Your task to perform on an android device: Open Google Chrome Image 0: 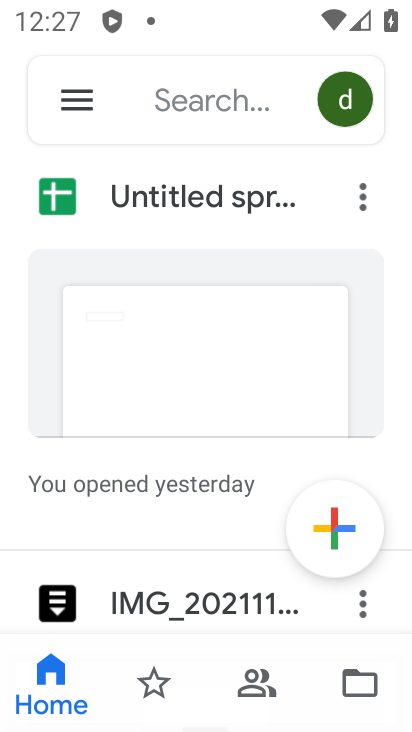
Step 0: press home button
Your task to perform on an android device: Open Google Chrome Image 1: 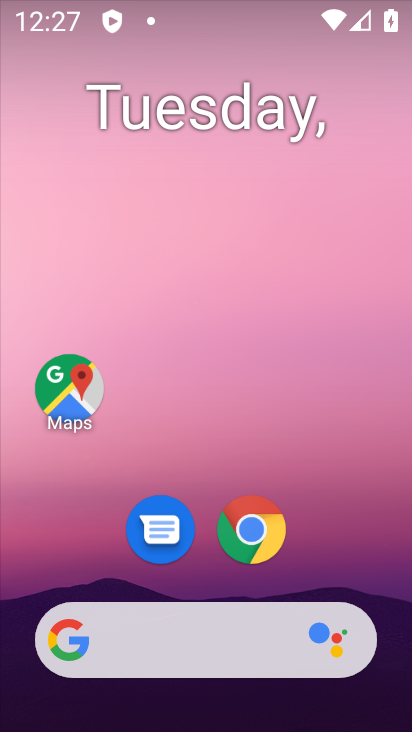
Step 1: drag from (324, 569) to (296, 296)
Your task to perform on an android device: Open Google Chrome Image 2: 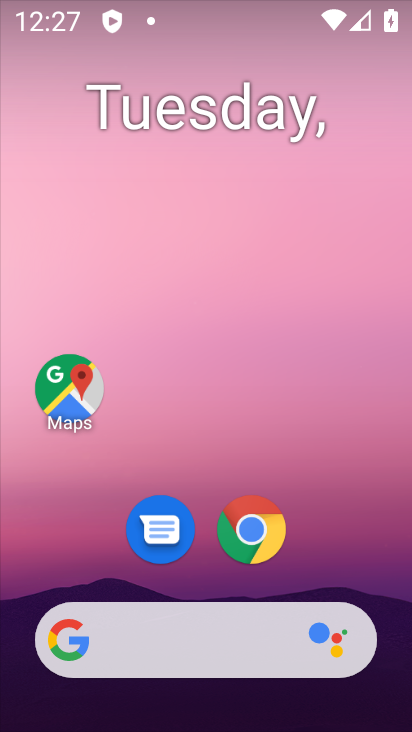
Step 2: click (252, 517)
Your task to perform on an android device: Open Google Chrome Image 3: 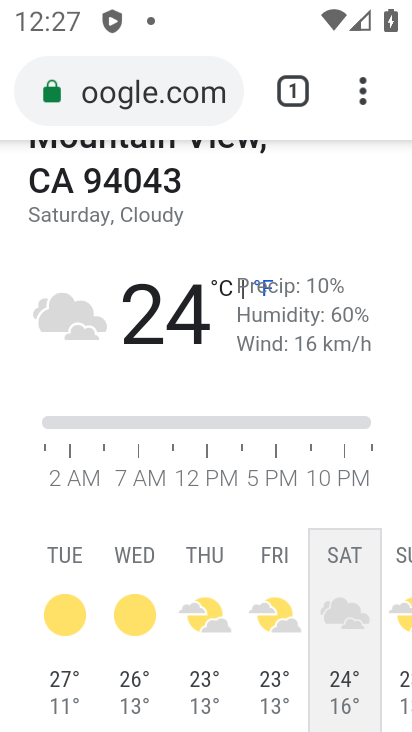
Step 3: click (369, 91)
Your task to perform on an android device: Open Google Chrome Image 4: 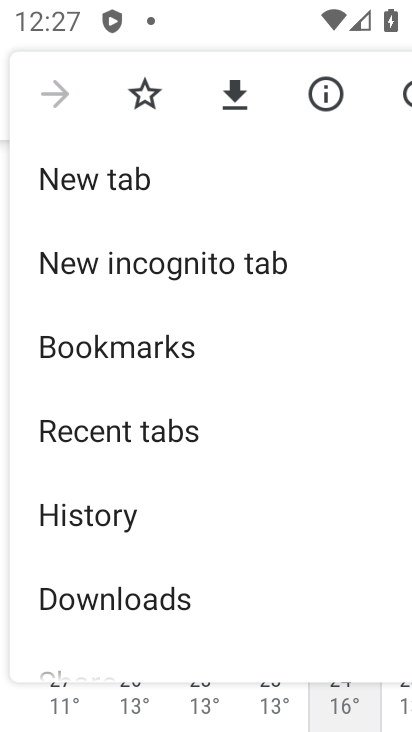
Step 4: press home button
Your task to perform on an android device: Open Google Chrome Image 5: 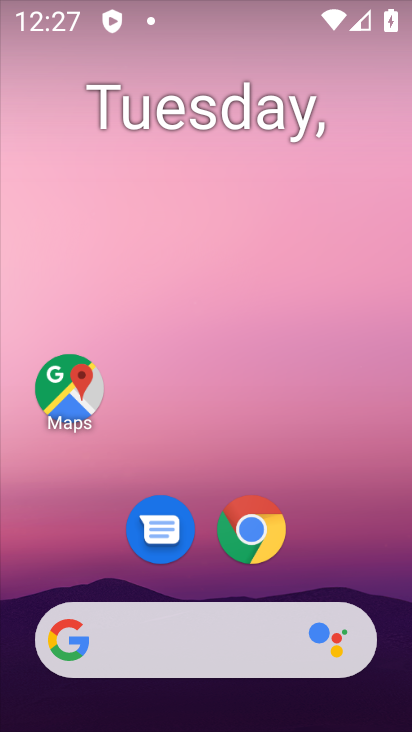
Step 5: click (254, 519)
Your task to perform on an android device: Open Google Chrome Image 6: 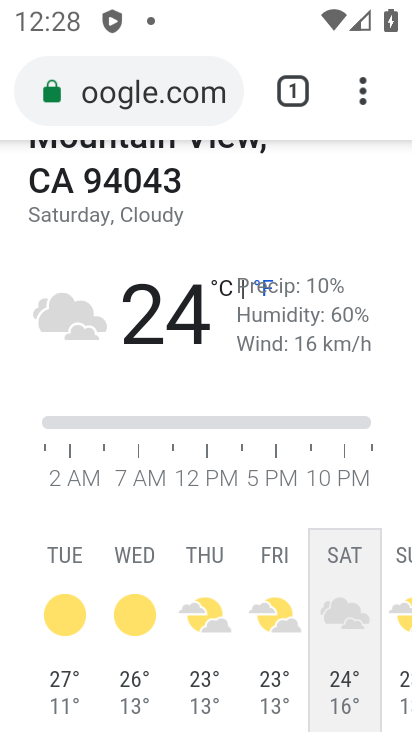
Step 6: press home button
Your task to perform on an android device: Open Google Chrome Image 7: 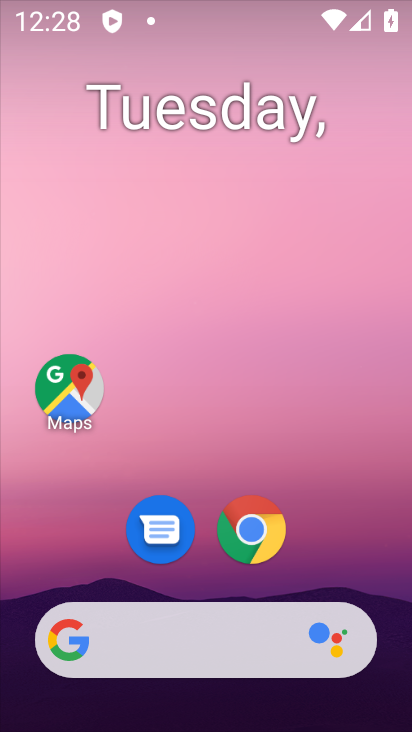
Step 7: drag from (263, 578) to (255, 249)
Your task to perform on an android device: Open Google Chrome Image 8: 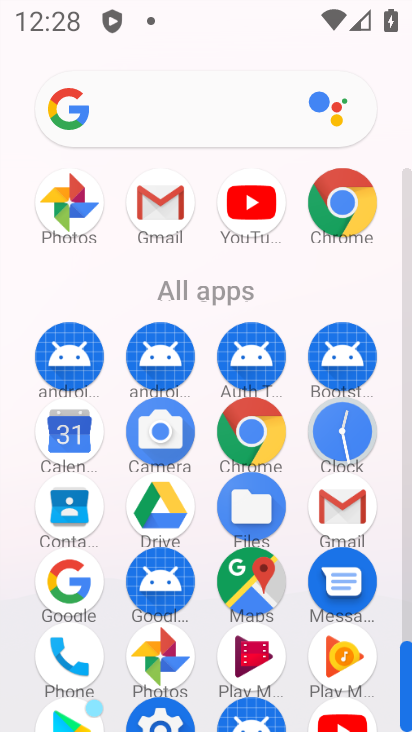
Step 8: click (74, 569)
Your task to perform on an android device: Open Google Chrome Image 9: 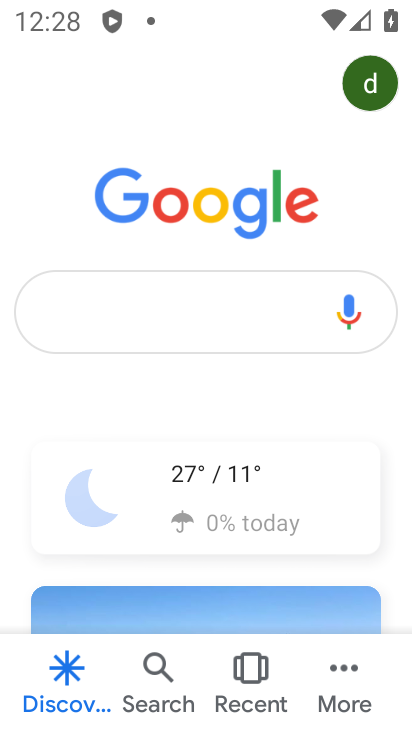
Step 9: task complete